Your task to perform on an android device: check google app version Image 0: 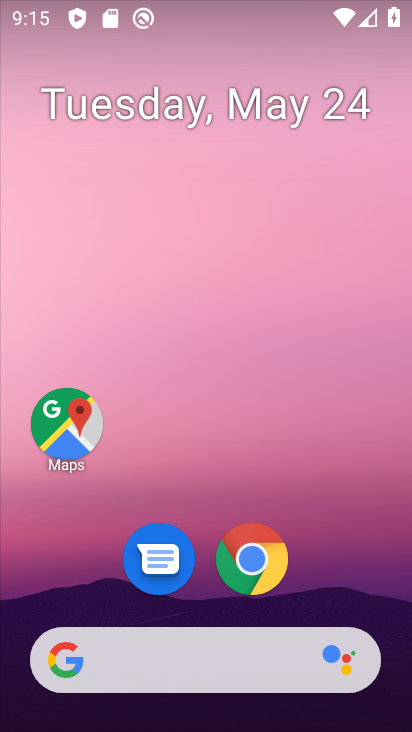
Step 0: click (254, 560)
Your task to perform on an android device: check google app version Image 1: 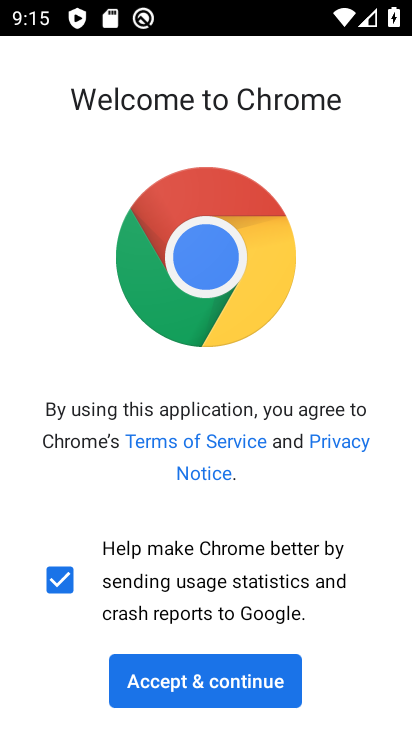
Step 1: press home button
Your task to perform on an android device: check google app version Image 2: 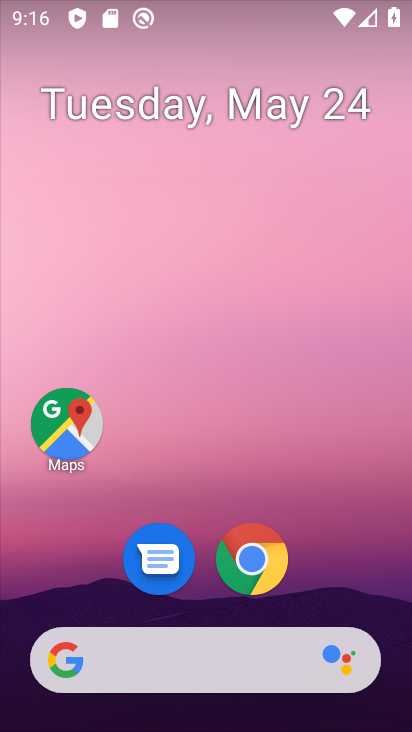
Step 2: click (248, 545)
Your task to perform on an android device: check google app version Image 3: 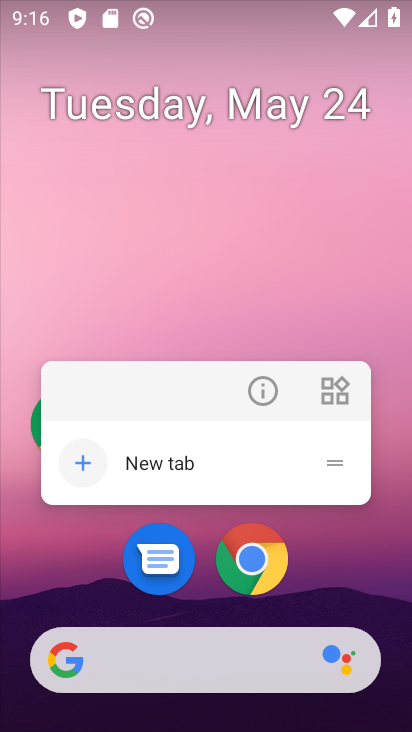
Step 3: click (269, 390)
Your task to perform on an android device: check google app version Image 4: 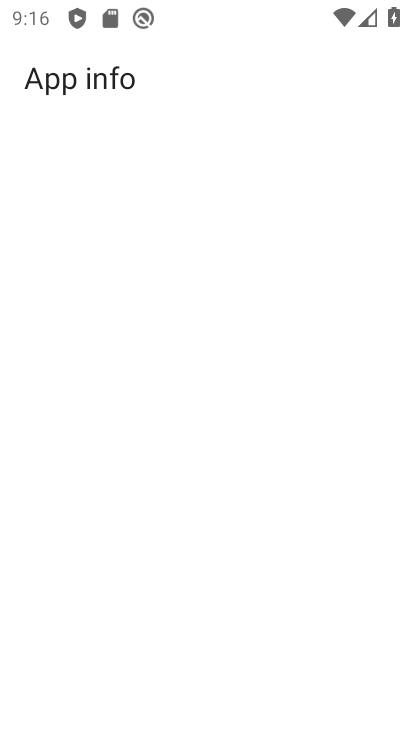
Step 4: task complete